Your task to perform on an android device: Open ESPN.com Image 0: 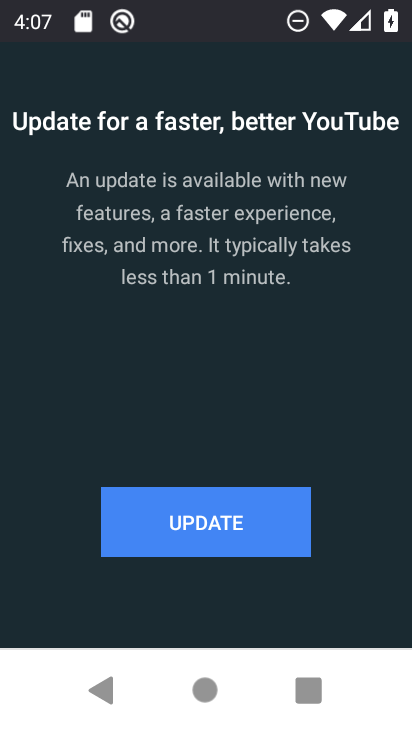
Step 0: press home button
Your task to perform on an android device: Open ESPN.com Image 1: 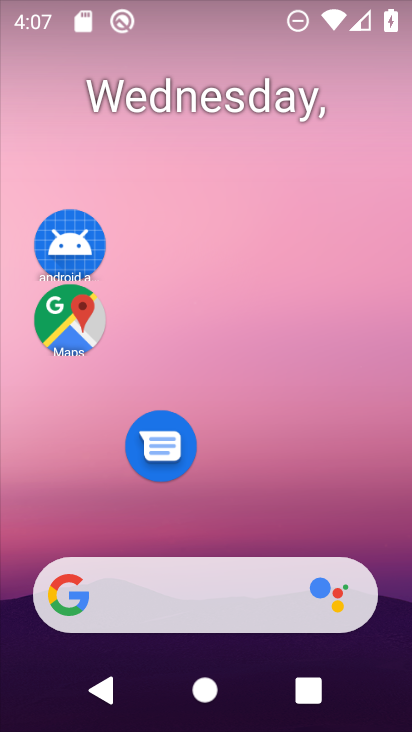
Step 1: drag from (283, 524) to (290, 235)
Your task to perform on an android device: Open ESPN.com Image 2: 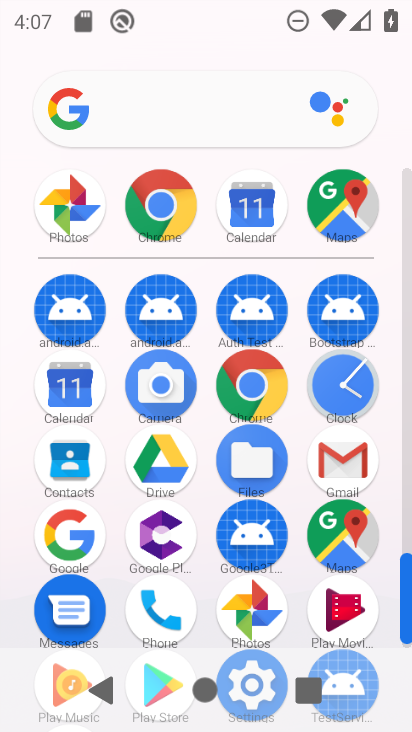
Step 2: click (170, 204)
Your task to perform on an android device: Open ESPN.com Image 3: 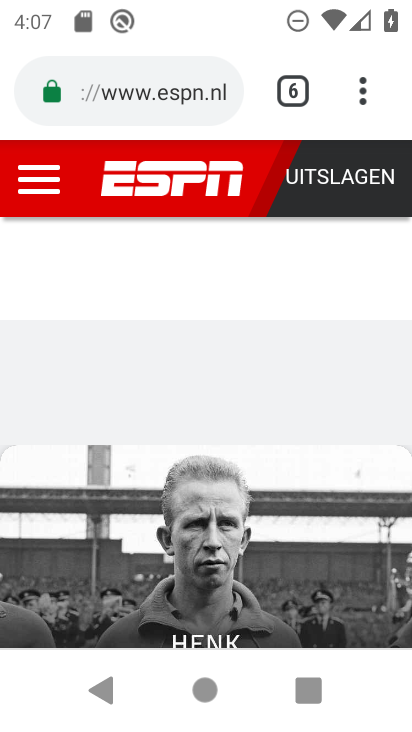
Step 3: task complete